Your task to perform on an android device: Toggle the flashlight Image 0: 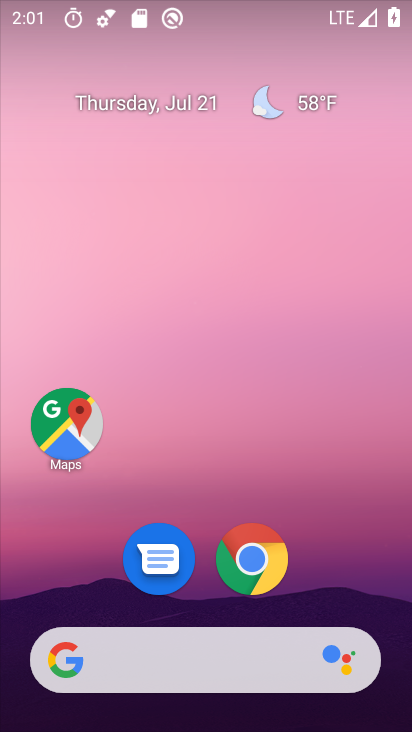
Step 0: drag from (268, 1) to (273, 447)
Your task to perform on an android device: Toggle the flashlight Image 1: 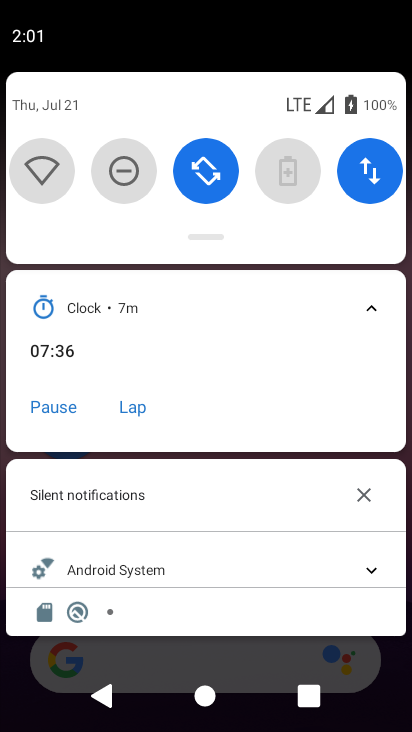
Step 1: drag from (240, 108) to (246, 381)
Your task to perform on an android device: Toggle the flashlight Image 2: 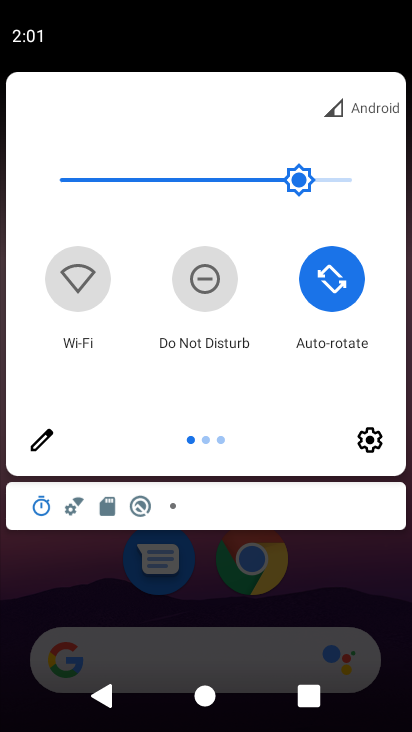
Step 2: click (41, 444)
Your task to perform on an android device: Toggle the flashlight Image 3: 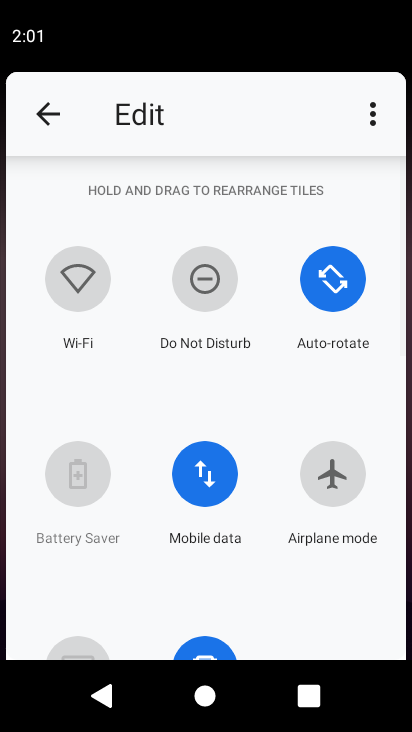
Step 3: task complete